Your task to perform on an android device: Search for "alienware area 51" on newegg, select the first entry, add it to the cart, then select checkout. Image 0: 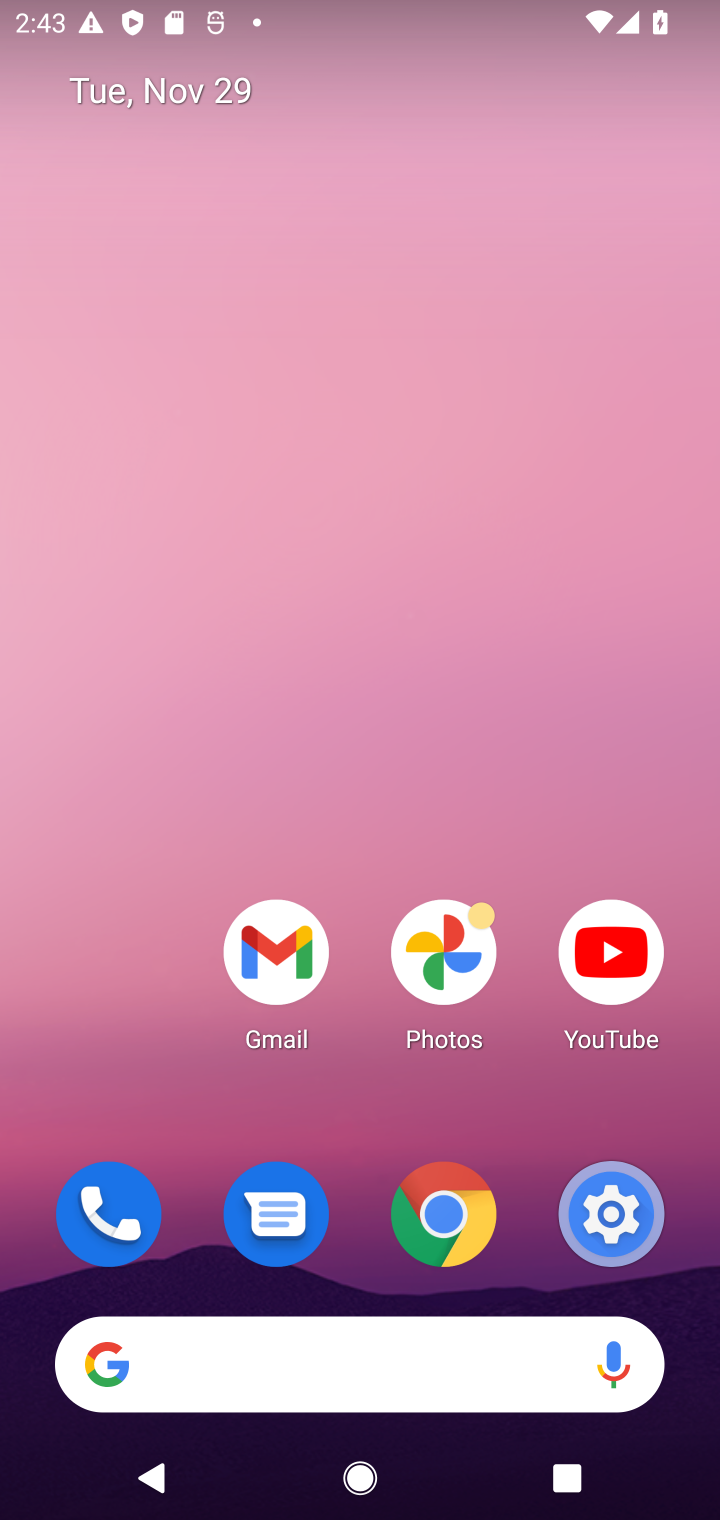
Step 0: click (353, 1385)
Your task to perform on an android device: Search for "alienware area 51" on newegg, select the first entry, add it to the cart, then select checkout. Image 1: 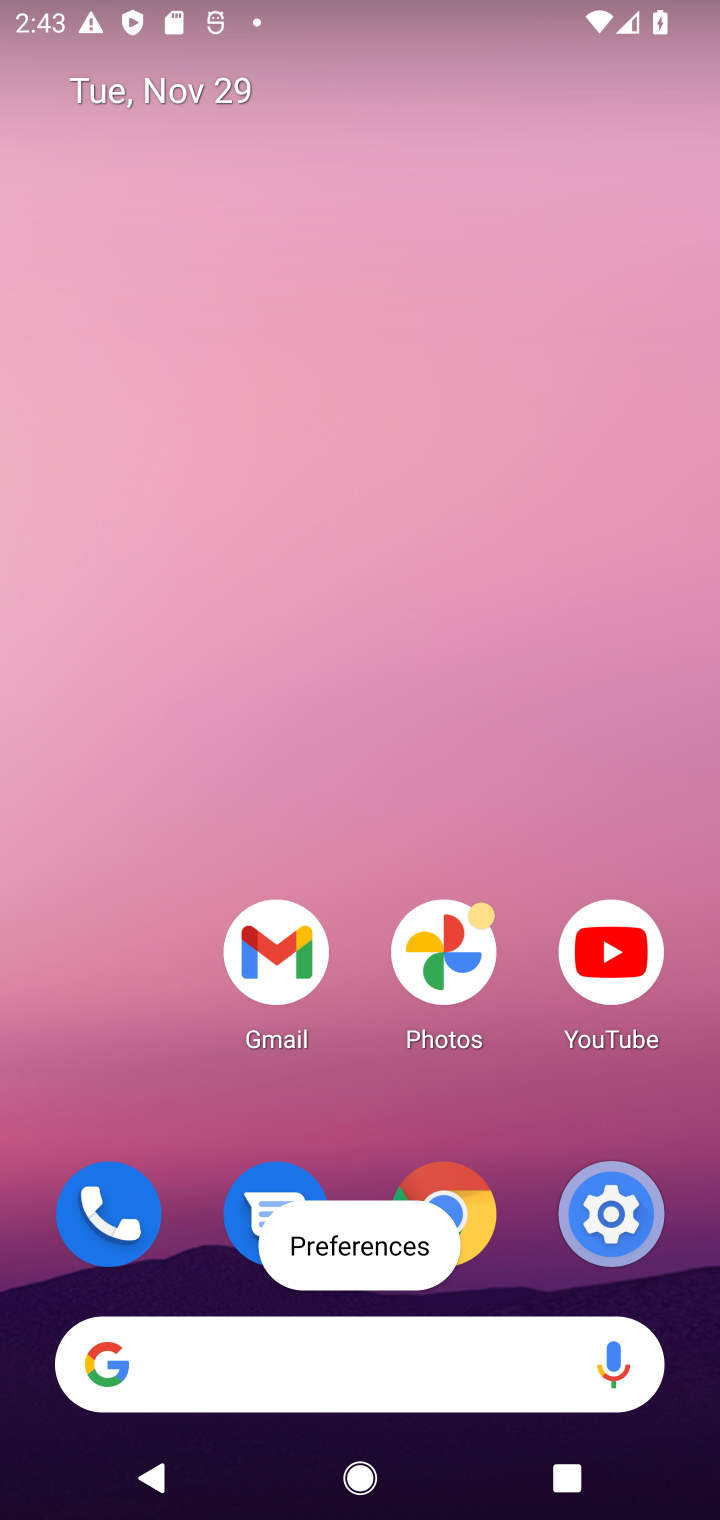
Step 1: type "newegg"
Your task to perform on an android device: Search for "alienware area 51" on newegg, select the first entry, add it to the cart, then select checkout. Image 2: 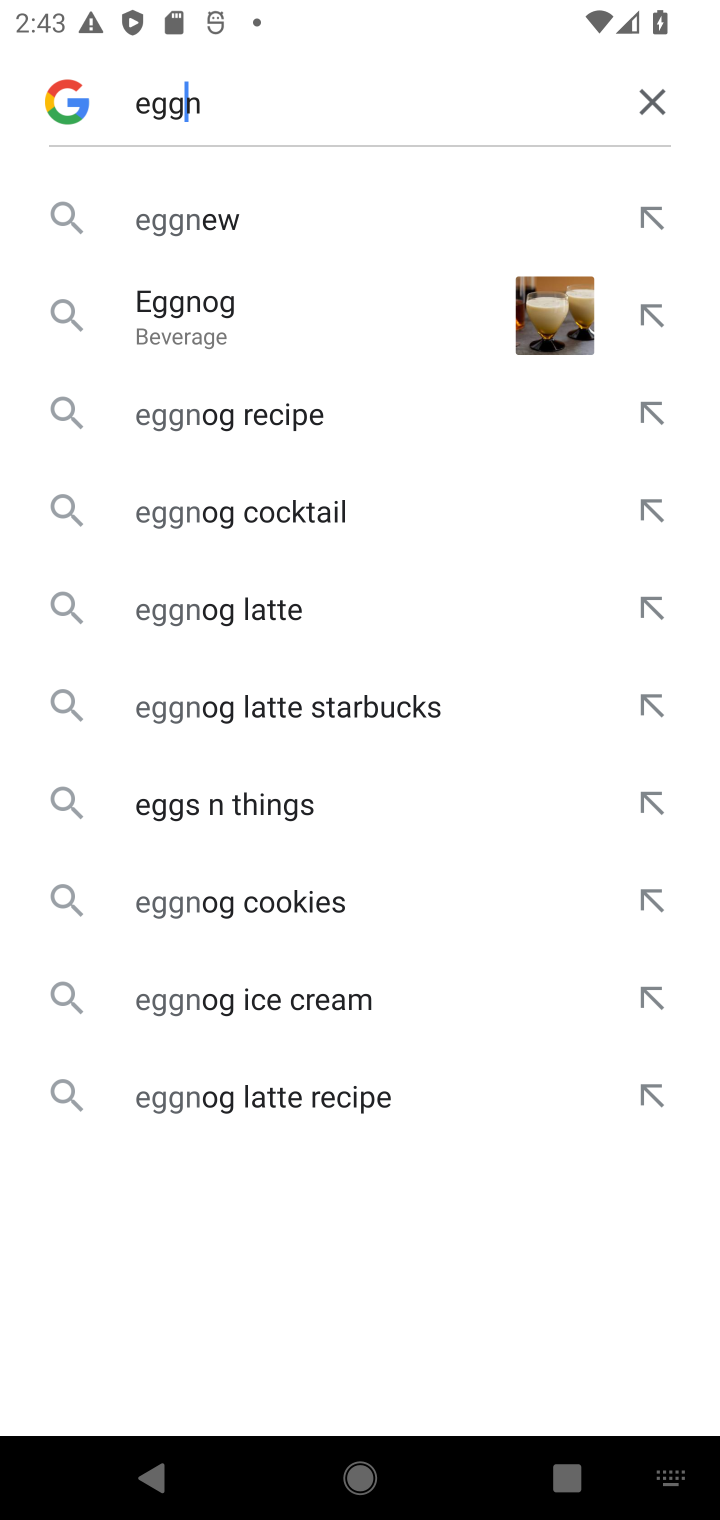
Step 2: task complete